Your task to perform on an android device: Open Youtube and go to the subscriptions tab Image 0: 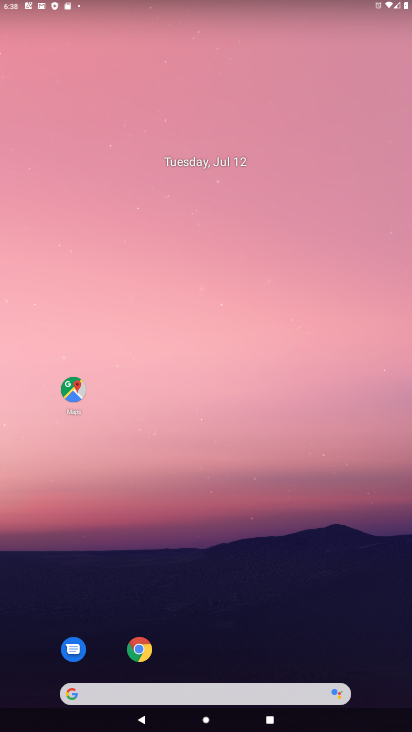
Step 0: drag from (204, 693) to (254, 301)
Your task to perform on an android device: Open Youtube and go to the subscriptions tab Image 1: 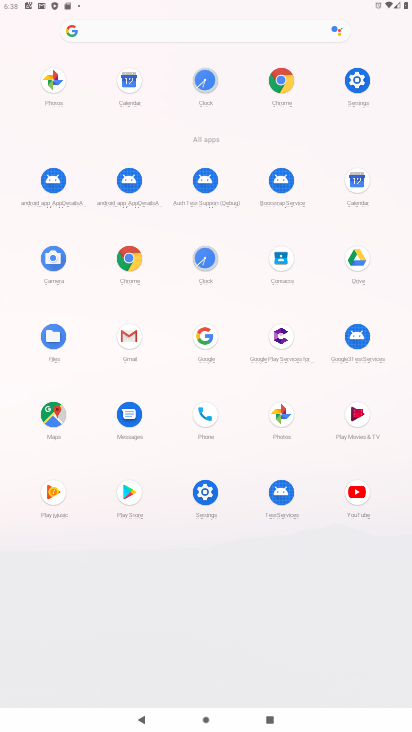
Step 1: click (358, 494)
Your task to perform on an android device: Open Youtube and go to the subscriptions tab Image 2: 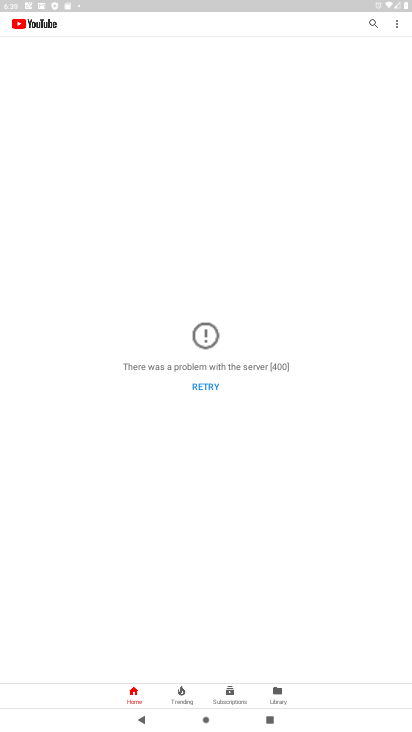
Step 2: click (230, 694)
Your task to perform on an android device: Open Youtube and go to the subscriptions tab Image 3: 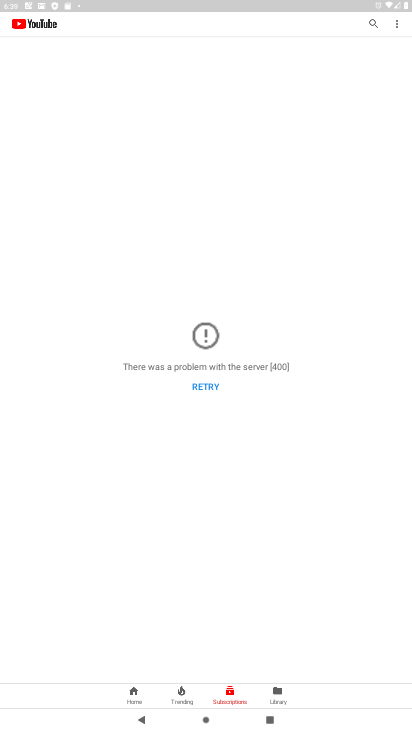
Step 3: task complete